Your task to perform on an android device: turn off wifi Image 0: 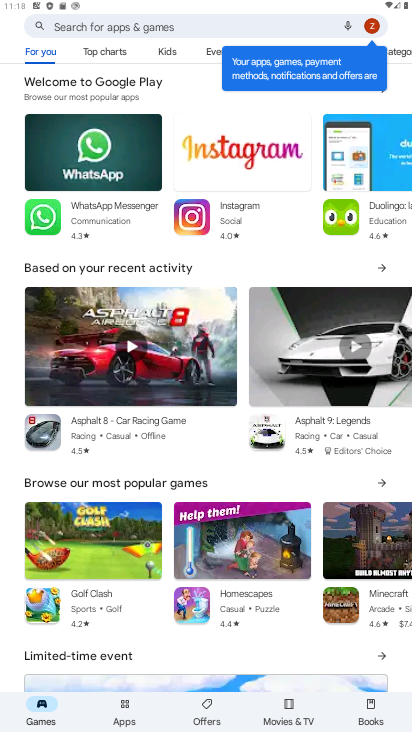
Step 0: press home button
Your task to perform on an android device: turn off wifi Image 1: 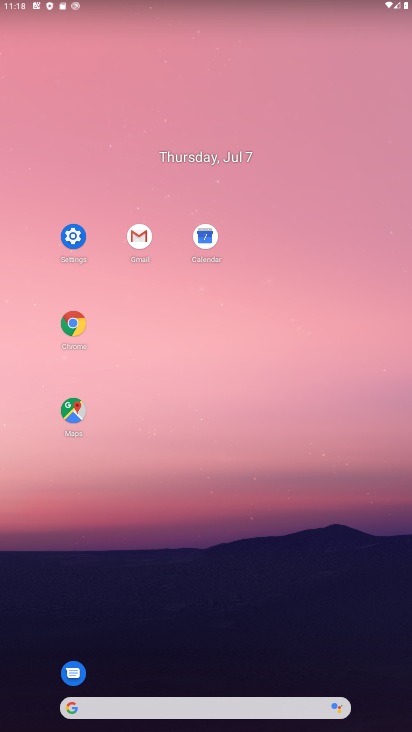
Step 1: click (66, 237)
Your task to perform on an android device: turn off wifi Image 2: 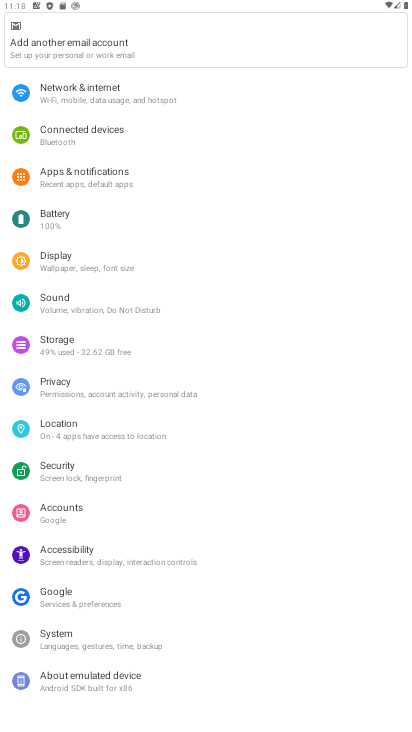
Step 2: click (135, 90)
Your task to perform on an android device: turn off wifi Image 3: 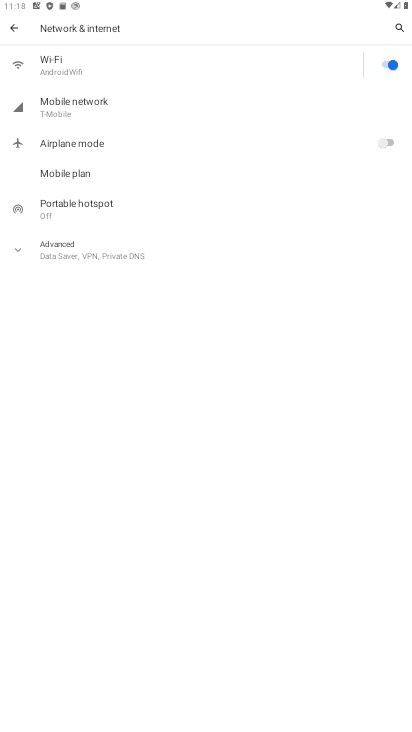
Step 3: click (389, 64)
Your task to perform on an android device: turn off wifi Image 4: 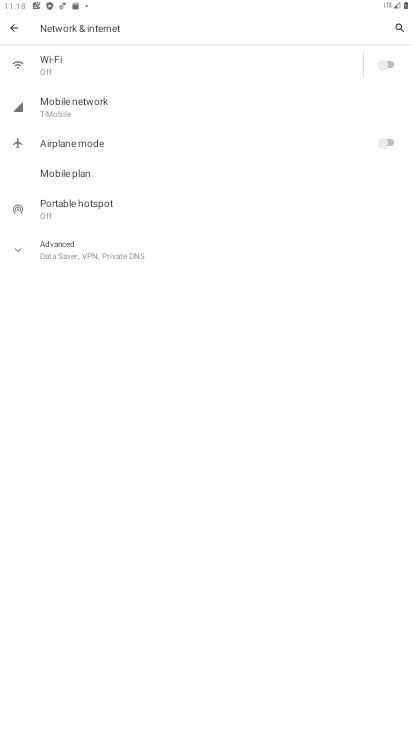
Step 4: task complete